Your task to perform on an android device: Add bose soundlink mini to the cart on target Image 0: 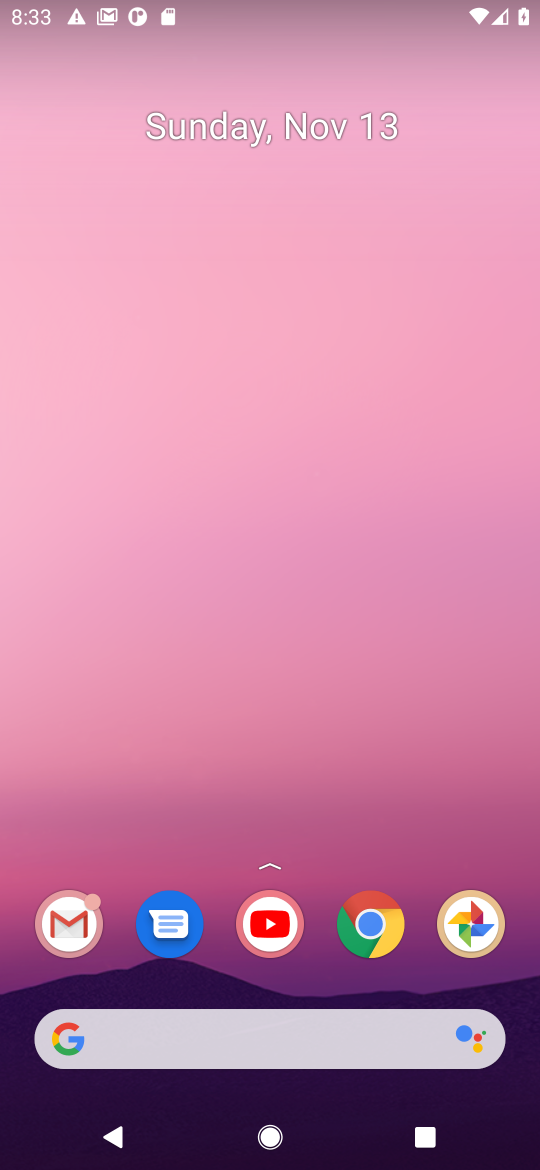
Step 0: click (366, 924)
Your task to perform on an android device: Add bose soundlink mini to the cart on target Image 1: 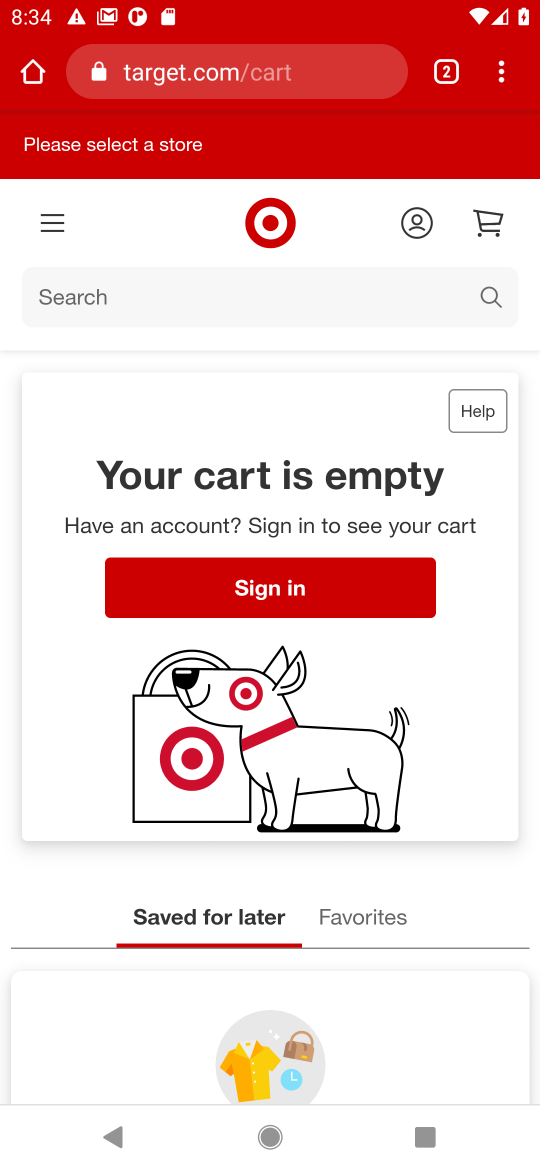
Step 1: click (479, 297)
Your task to perform on an android device: Add bose soundlink mini to the cart on target Image 2: 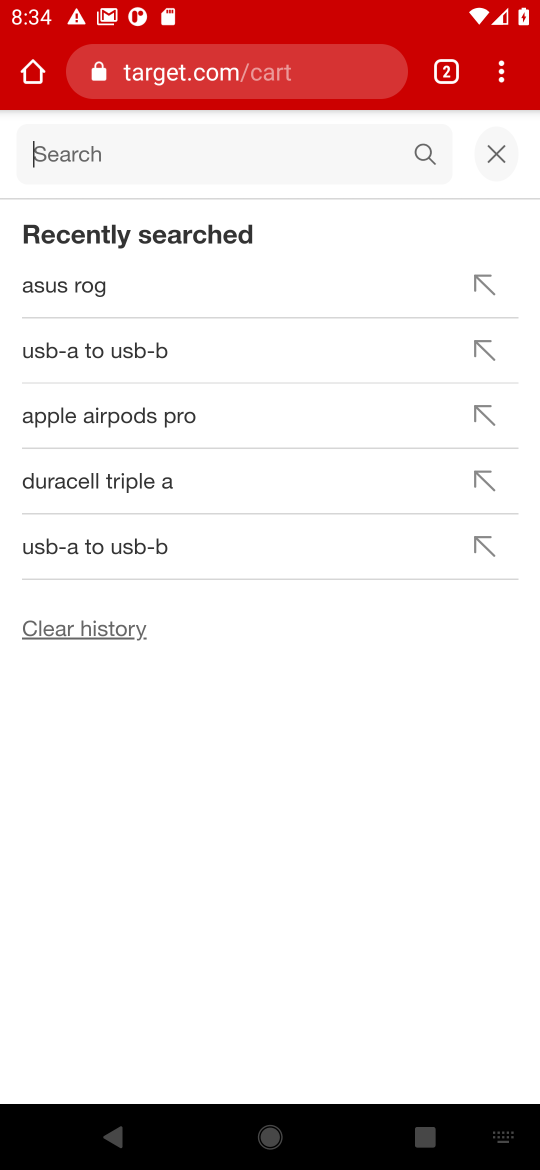
Step 2: type " bose soundlink mini"
Your task to perform on an android device: Add bose soundlink mini to the cart on target Image 3: 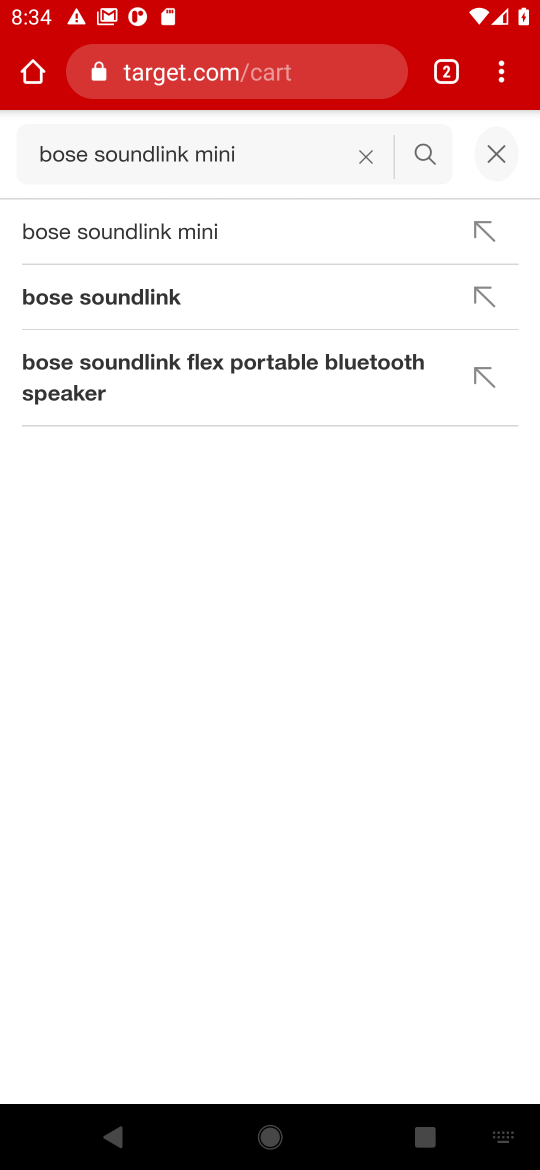
Step 3: click (137, 240)
Your task to perform on an android device: Add bose soundlink mini to the cart on target Image 4: 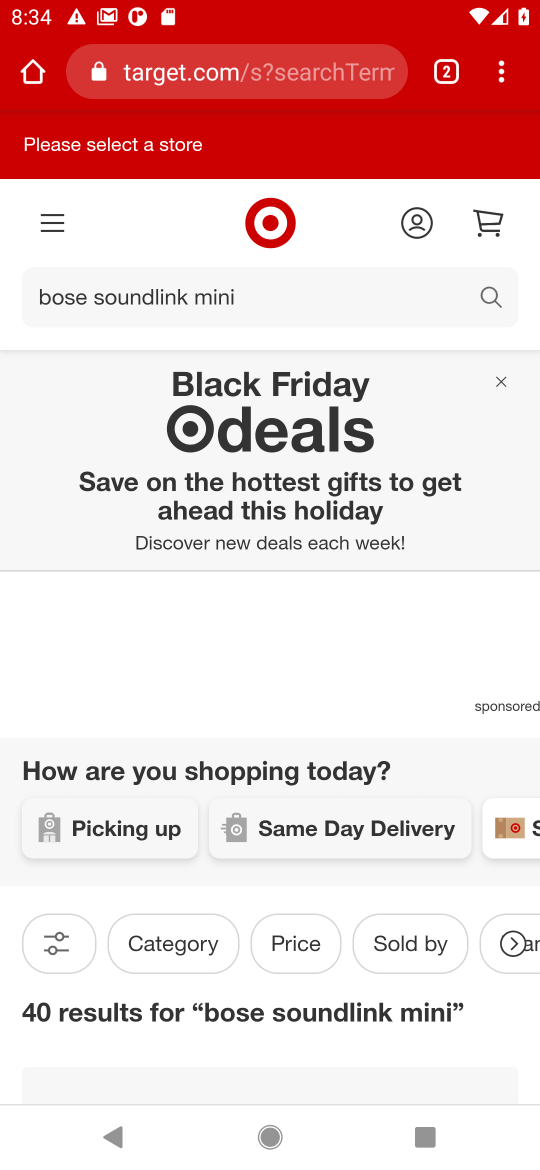
Step 4: task complete